Your task to perform on an android device: Search for a dining table on crateandbarrel.com Image 0: 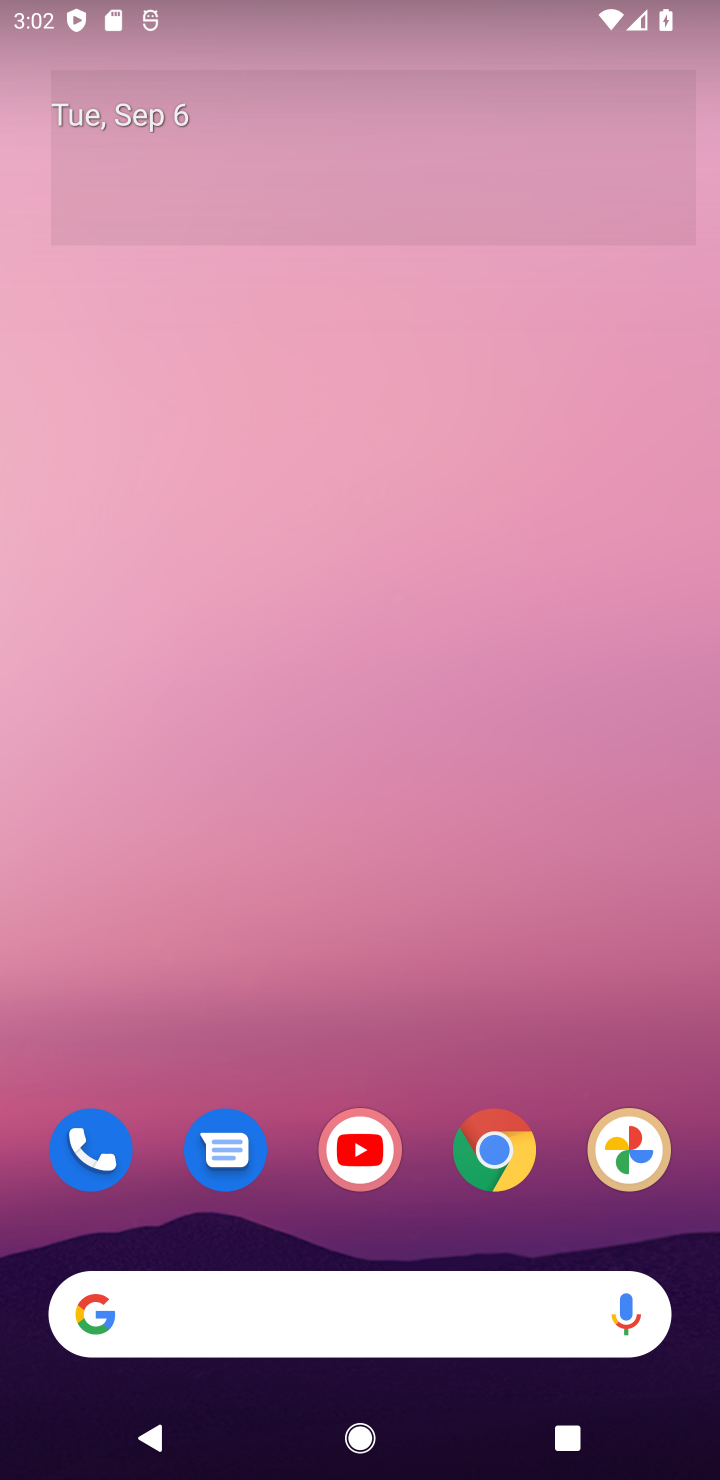
Step 0: click (497, 1165)
Your task to perform on an android device: Search for a dining table on crateandbarrel.com Image 1: 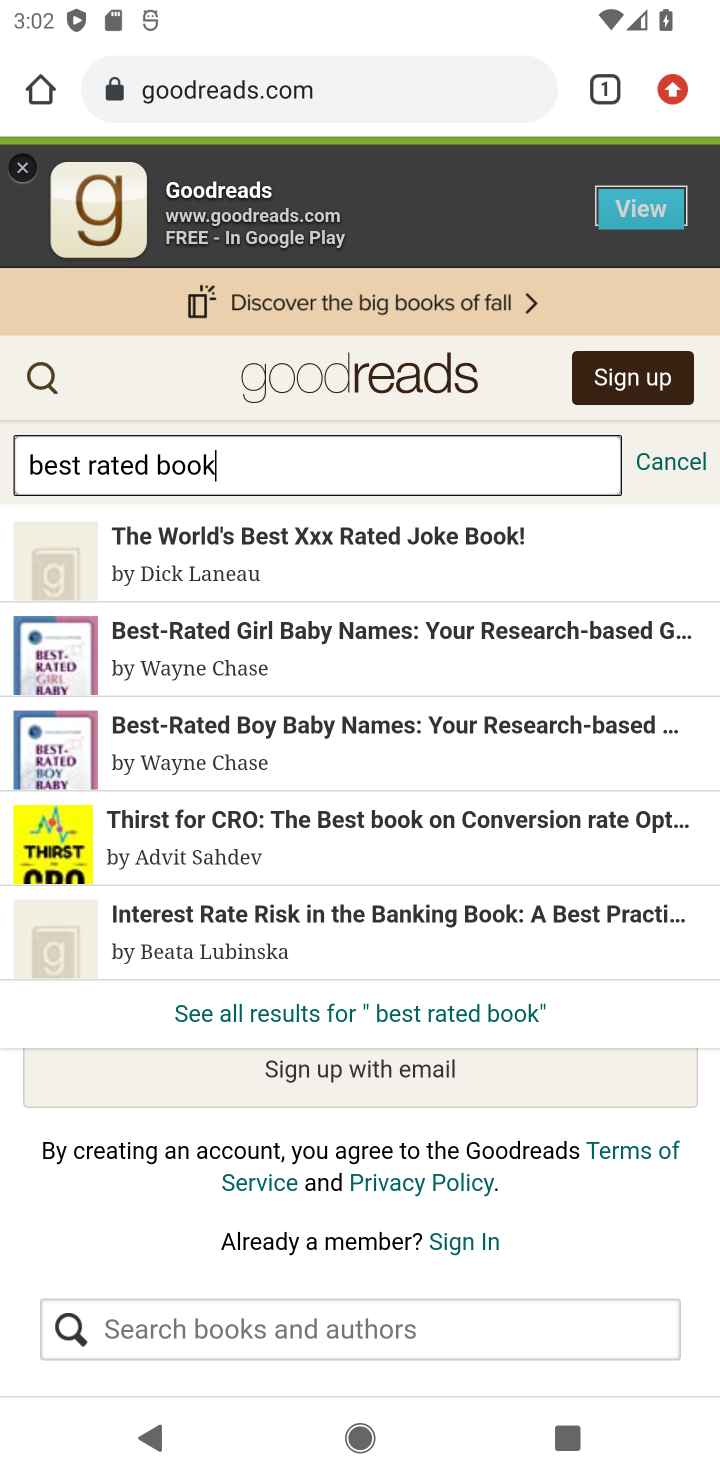
Step 1: click (284, 86)
Your task to perform on an android device: Search for a dining table on crateandbarrel.com Image 2: 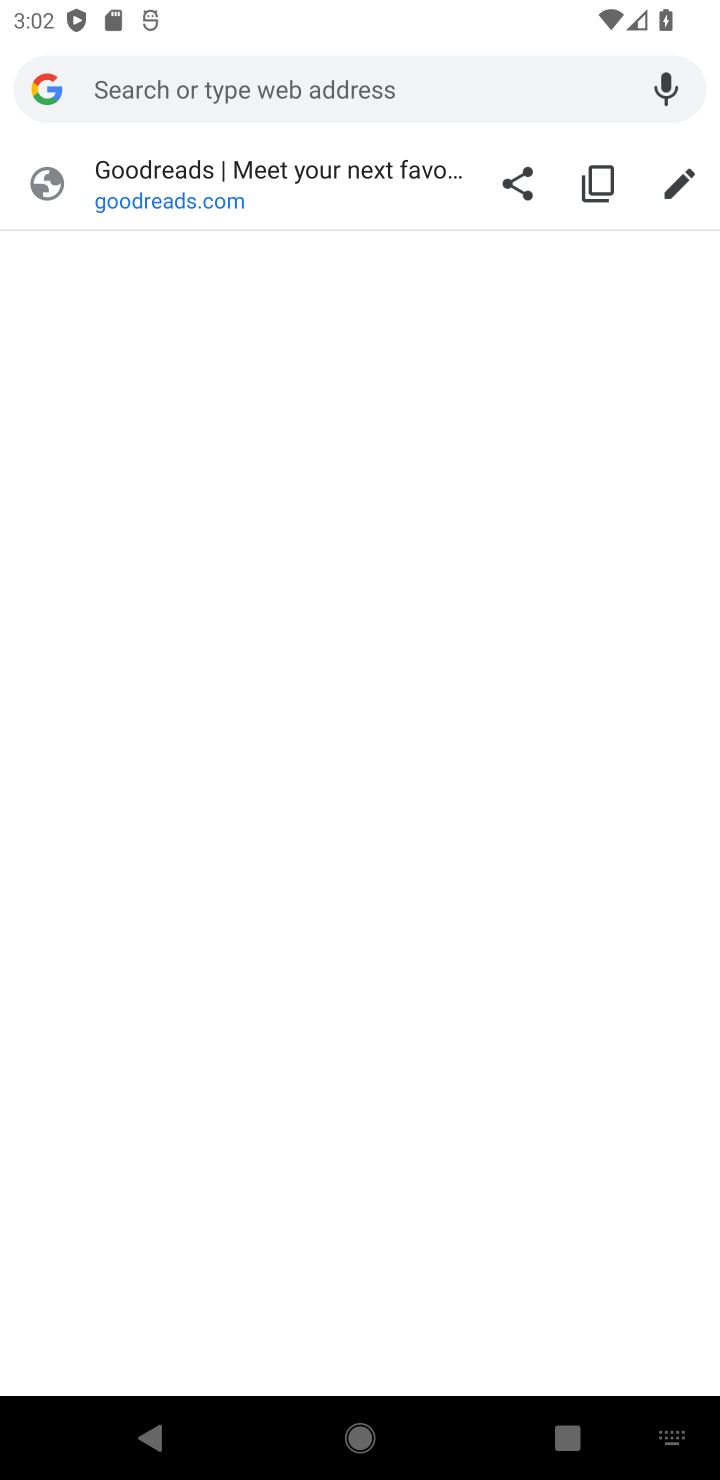
Step 2: type "crateandbarrel.com"
Your task to perform on an android device: Search for a dining table on crateandbarrel.com Image 3: 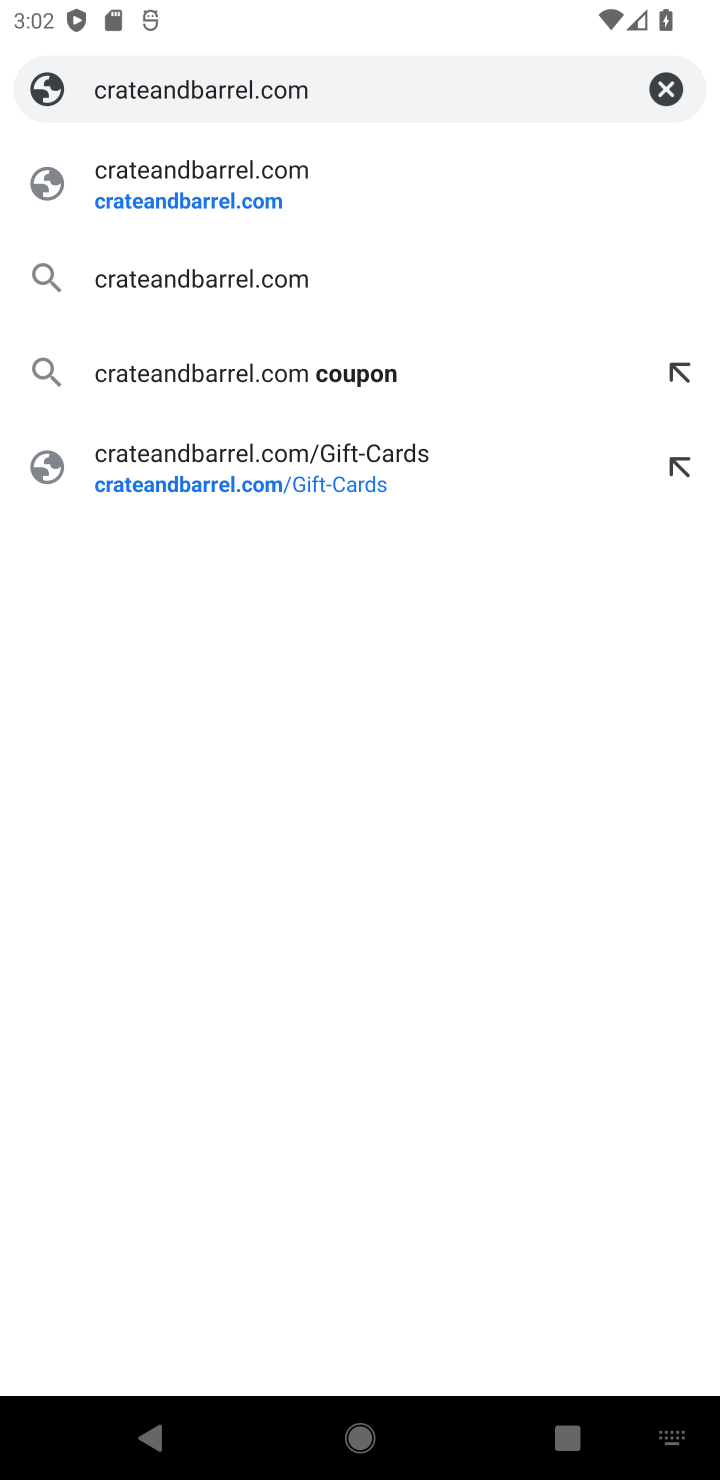
Step 3: click (198, 203)
Your task to perform on an android device: Search for a dining table on crateandbarrel.com Image 4: 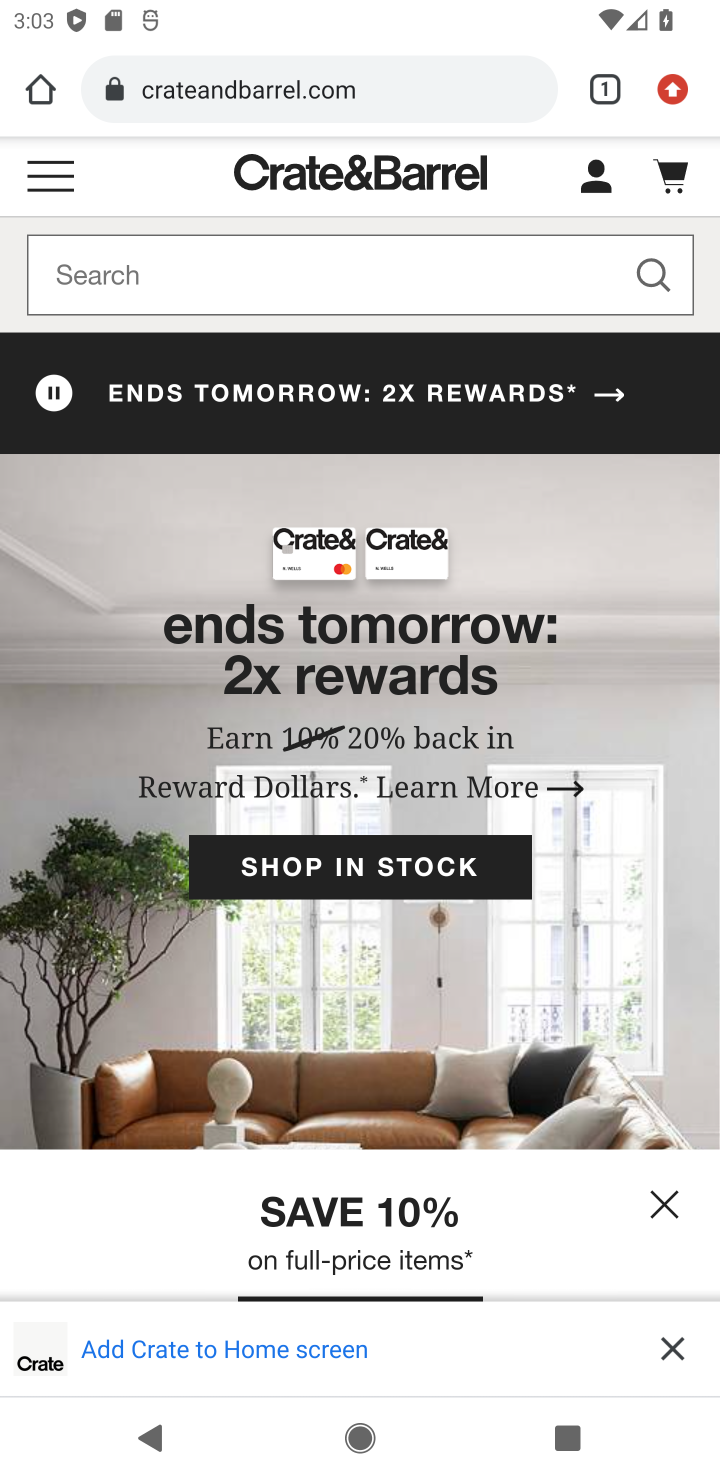
Step 4: click (172, 276)
Your task to perform on an android device: Search for a dining table on crateandbarrel.com Image 5: 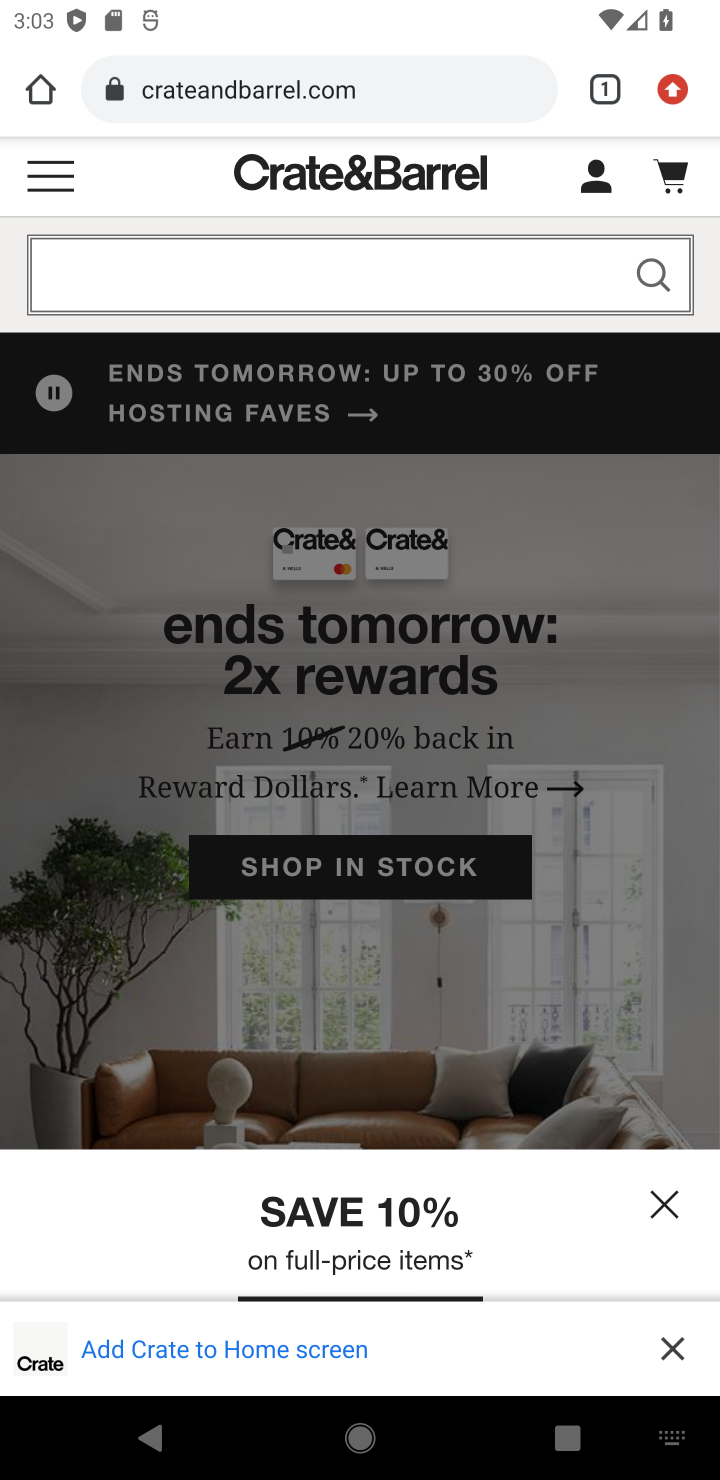
Step 5: type "dining table "
Your task to perform on an android device: Search for a dining table on crateandbarrel.com Image 6: 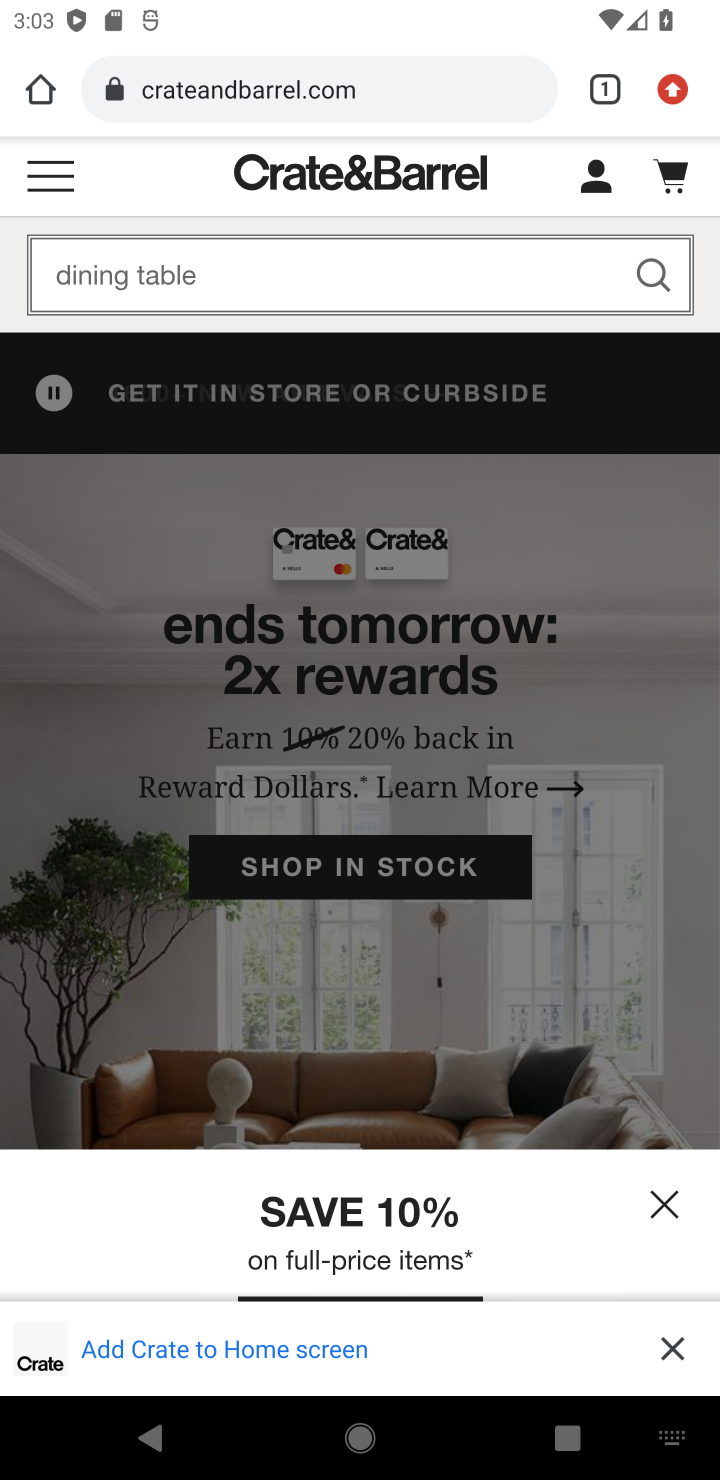
Step 6: click (639, 261)
Your task to perform on an android device: Search for a dining table on crateandbarrel.com Image 7: 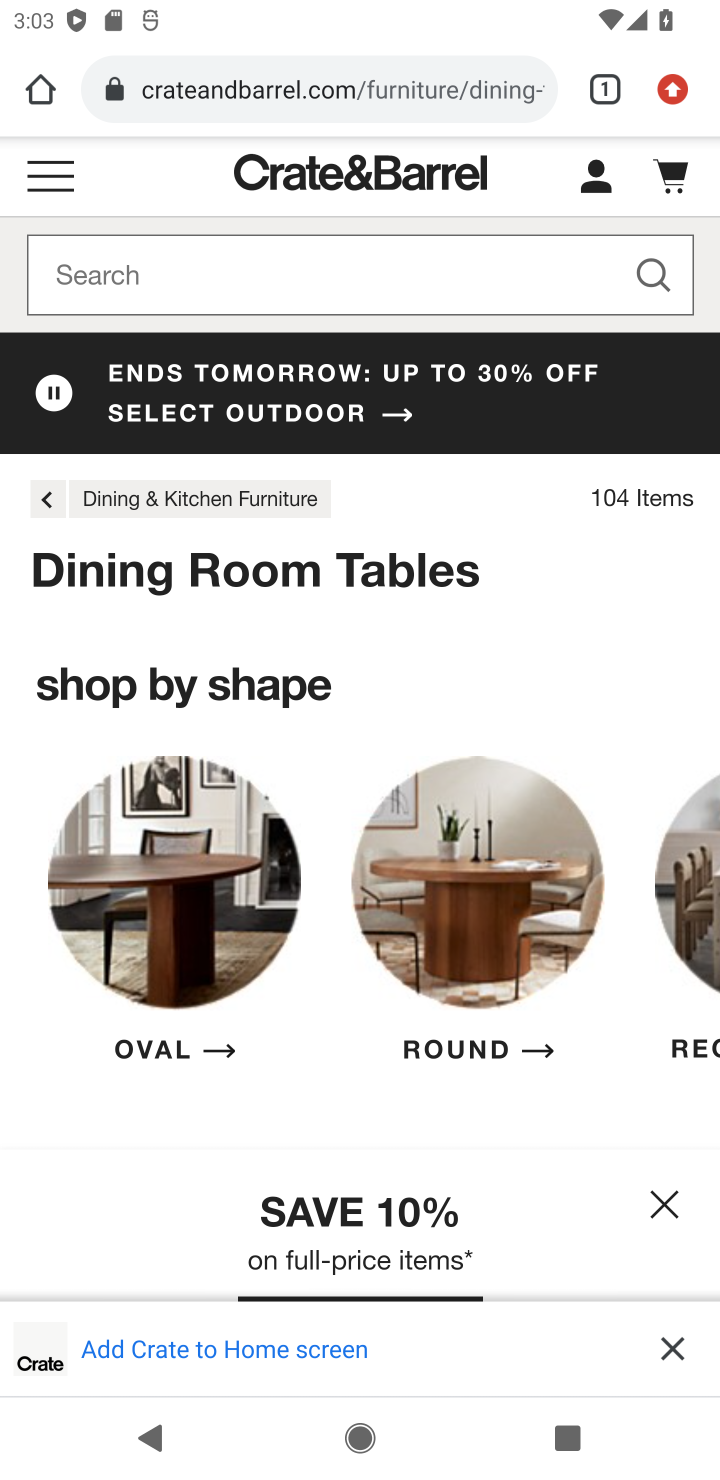
Step 7: task complete